Your task to perform on an android device: toggle translation in the chrome app Image 0: 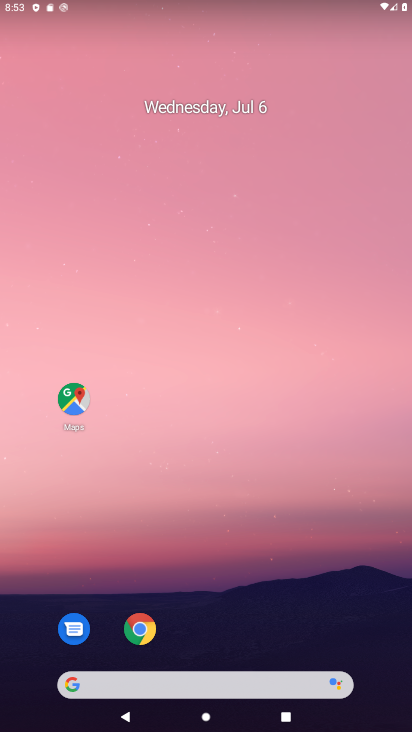
Step 0: drag from (234, 640) to (240, 178)
Your task to perform on an android device: toggle translation in the chrome app Image 1: 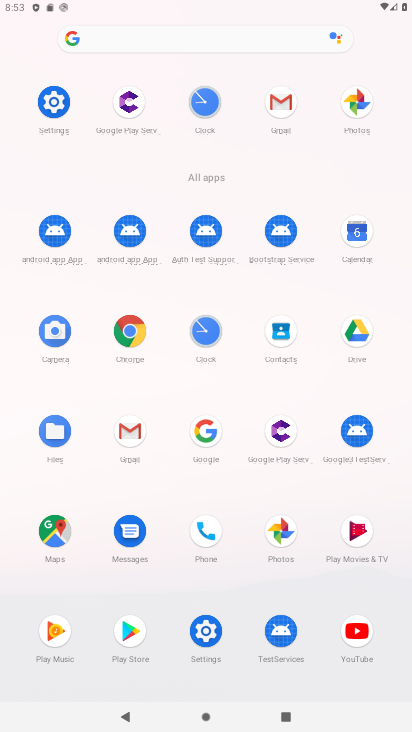
Step 1: click (123, 329)
Your task to perform on an android device: toggle translation in the chrome app Image 2: 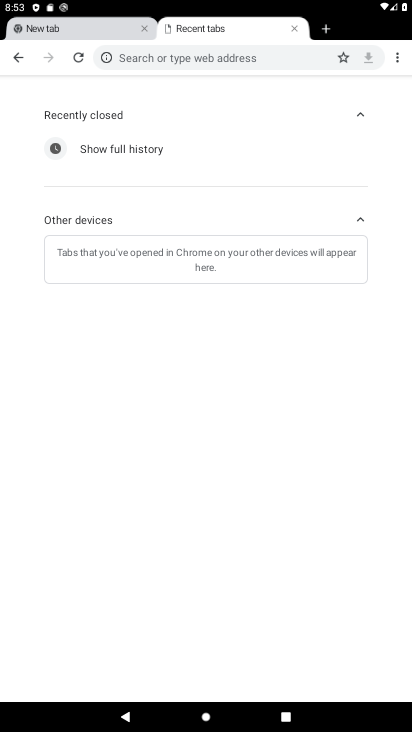
Step 2: press back button
Your task to perform on an android device: toggle translation in the chrome app Image 3: 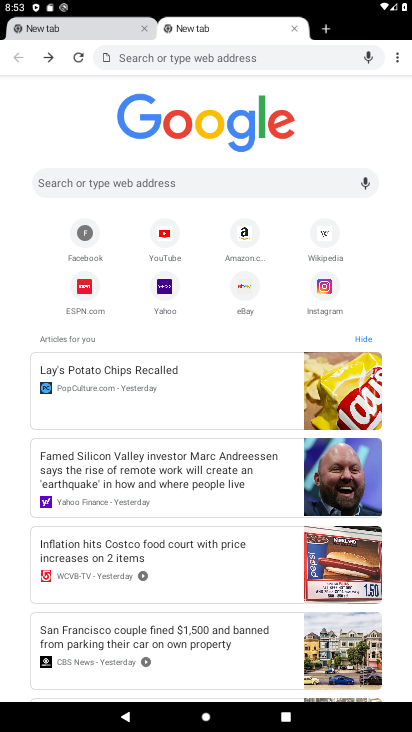
Step 3: click (397, 49)
Your task to perform on an android device: toggle translation in the chrome app Image 4: 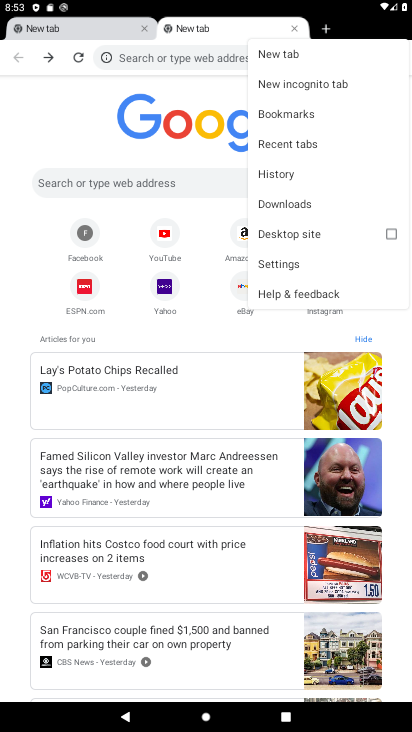
Step 4: click (292, 258)
Your task to perform on an android device: toggle translation in the chrome app Image 5: 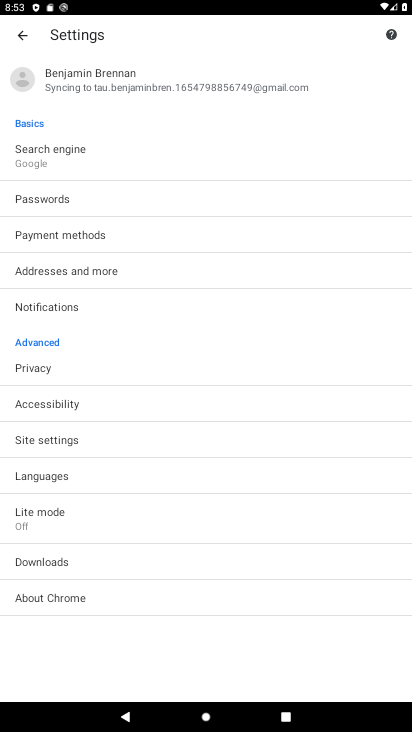
Step 5: click (63, 473)
Your task to perform on an android device: toggle translation in the chrome app Image 6: 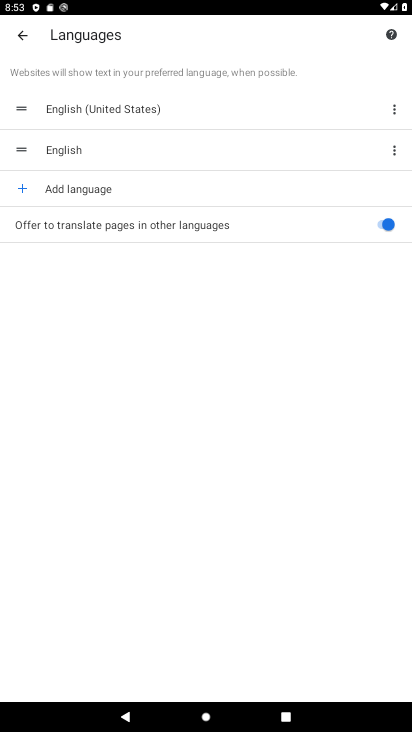
Step 6: click (386, 223)
Your task to perform on an android device: toggle translation in the chrome app Image 7: 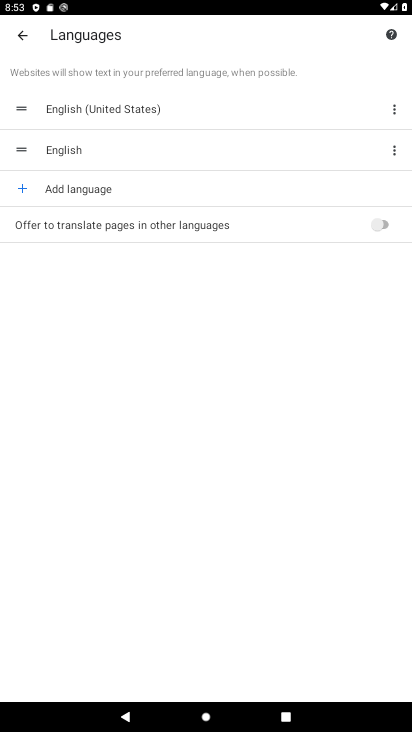
Step 7: task complete